Your task to perform on an android device: delete a single message in the gmail app Image 0: 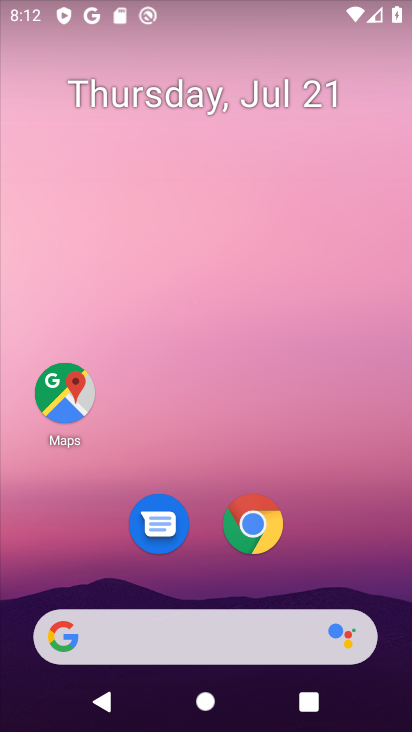
Step 0: drag from (187, 624) to (327, 208)
Your task to perform on an android device: delete a single message in the gmail app Image 1: 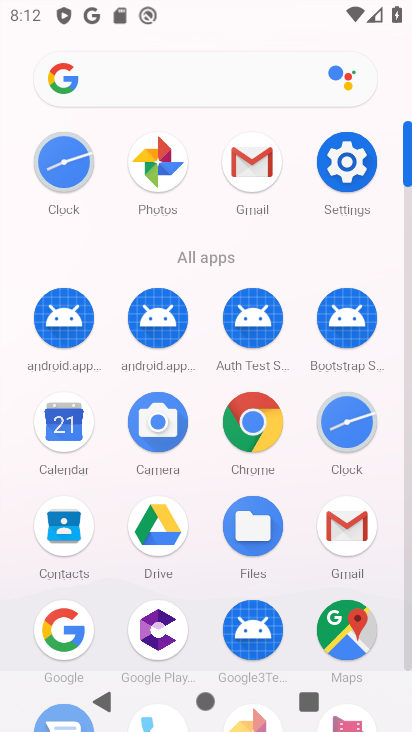
Step 1: click (248, 182)
Your task to perform on an android device: delete a single message in the gmail app Image 2: 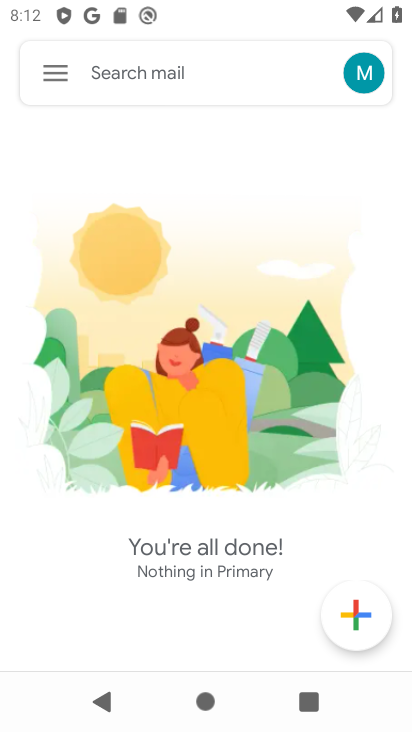
Step 2: click (55, 78)
Your task to perform on an android device: delete a single message in the gmail app Image 3: 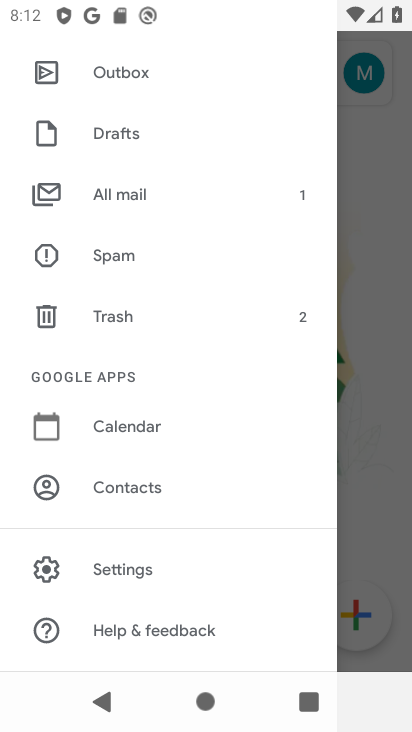
Step 3: click (164, 194)
Your task to perform on an android device: delete a single message in the gmail app Image 4: 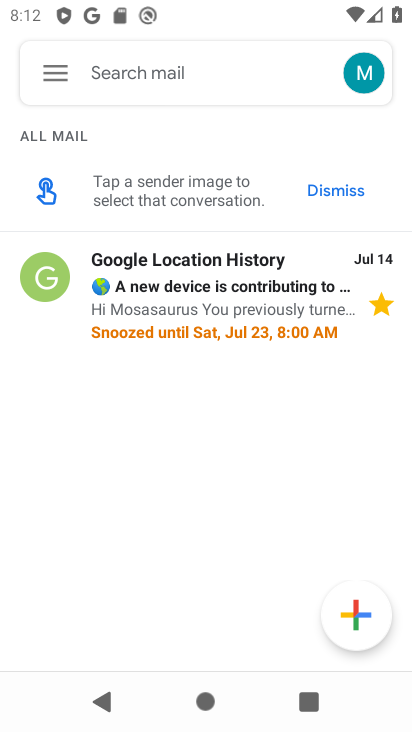
Step 4: click (46, 268)
Your task to perform on an android device: delete a single message in the gmail app Image 5: 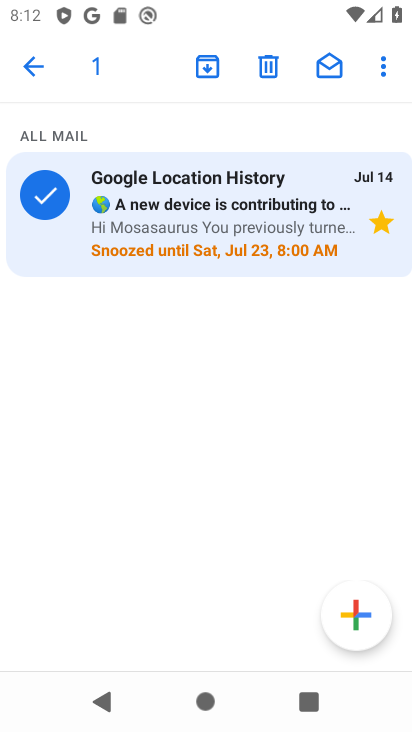
Step 5: click (268, 58)
Your task to perform on an android device: delete a single message in the gmail app Image 6: 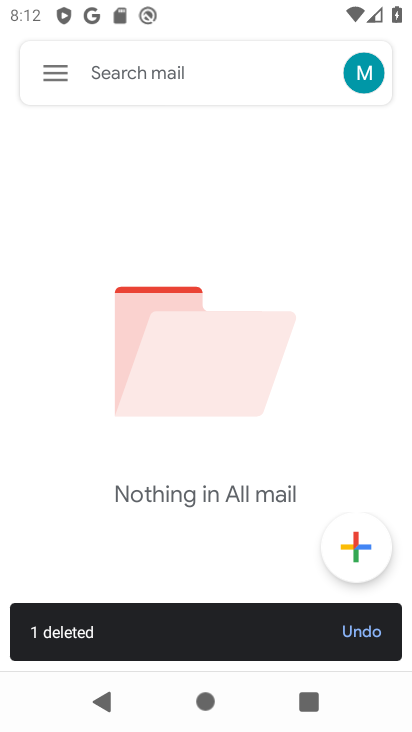
Step 6: task complete